Your task to perform on an android device: Open battery settings Image 0: 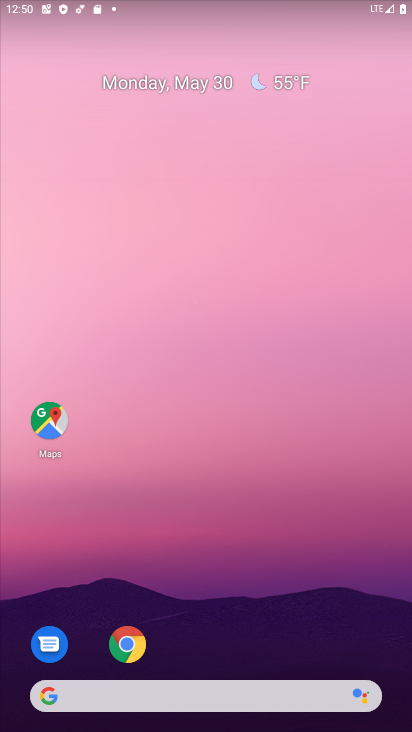
Step 0: drag from (303, 665) to (279, 195)
Your task to perform on an android device: Open battery settings Image 1: 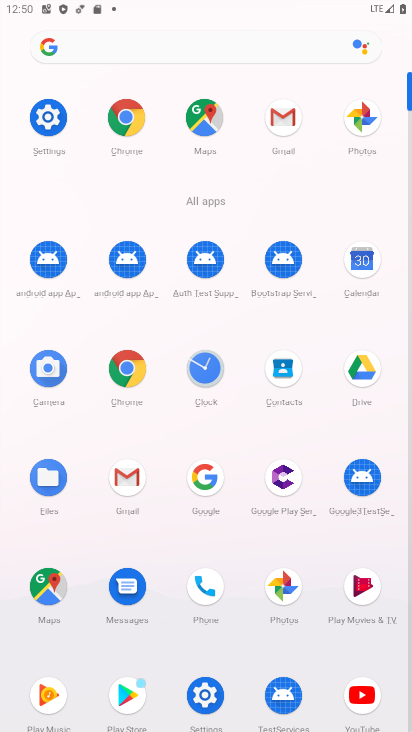
Step 1: click (48, 138)
Your task to perform on an android device: Open battery settings Image 2: 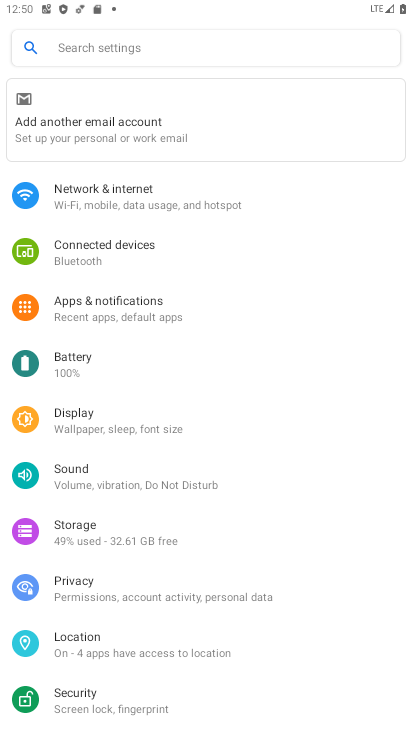
Step 2: click (135, 381)
Your task to perform on an android device: Open battery settings Image 3: 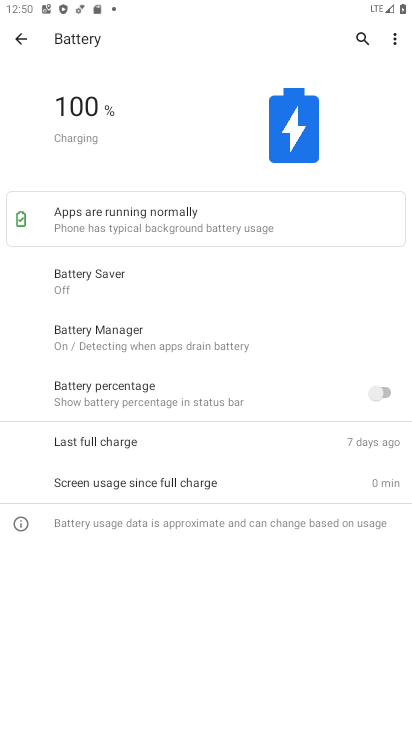
Step 3: task complete